Your task to perform on an android device: What's the weather going to be this weekend? Image 0: 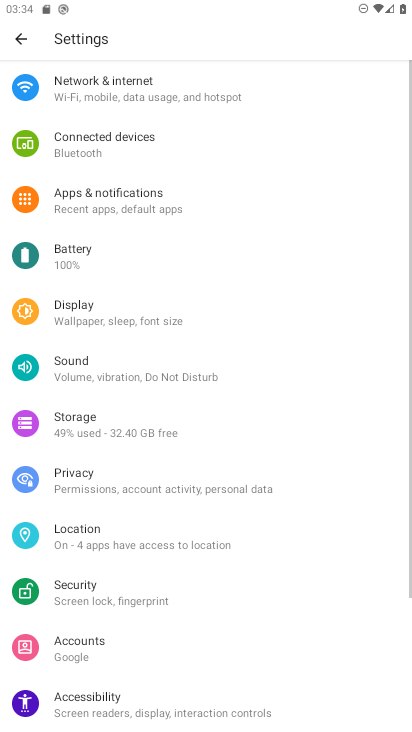
Step 0: press home button
Your task to perform on an android device: What's the weather going to be this weekend? Image 1: 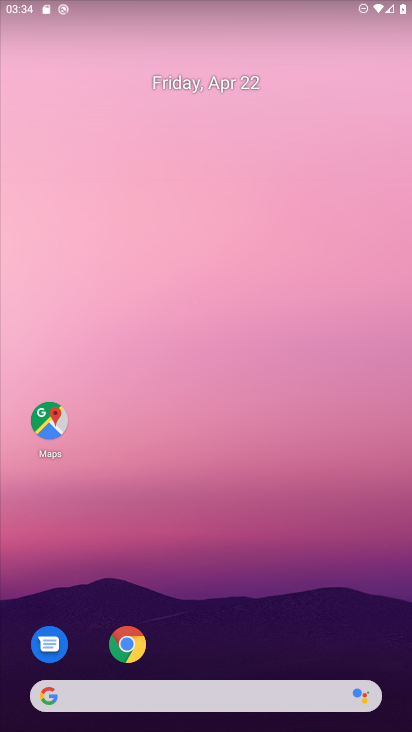
Step 1: drag from (229, 581) to (242, 148)
Your task to perform on an android device: What's the weather going to be this weekend? Image 2: 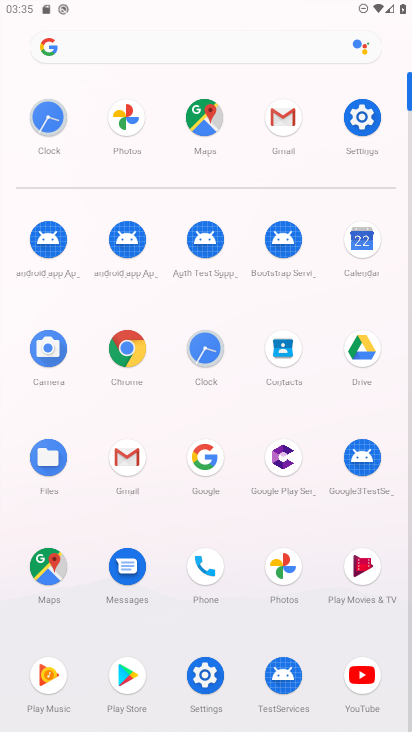
Step 2: click (129, 350)
Your task to perform on an android device: What's the weather going to be this weekend? Image 3: 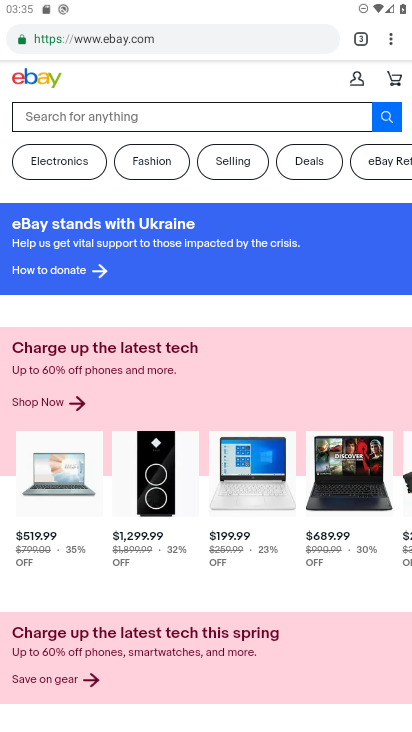
Step 3: click (177, 43)
Your task to perform on an android device: What's the weather going to be this weekend? Image 4: 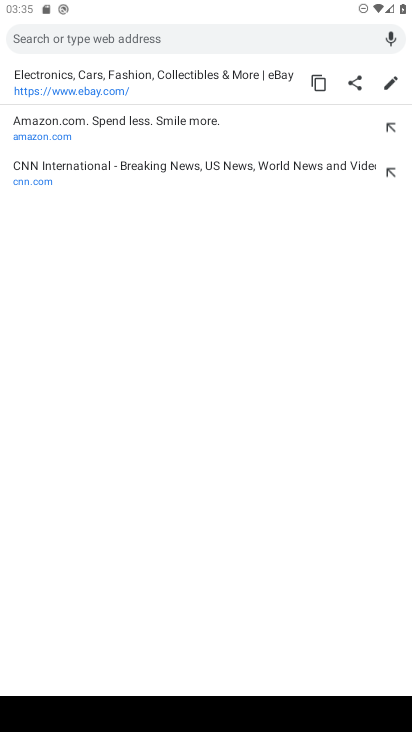
Step 4: type "weather"
Your task to perform on an android device: What's the weather going to be this weekend? Image 5: 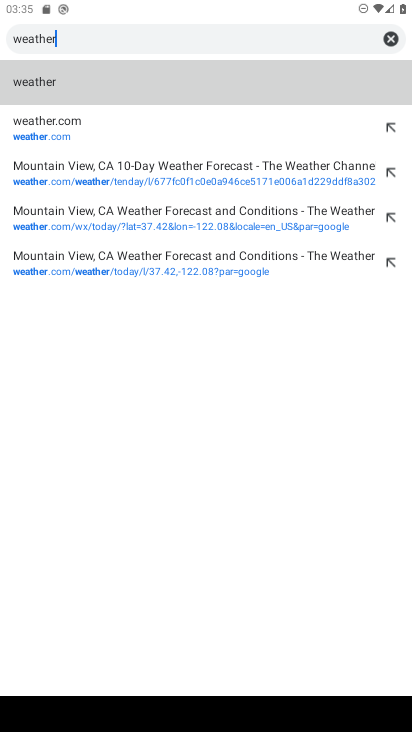
Step 5: click (45, 78)
Your task to perform on an android device: What's the weather going to be this weekend? Image 6: 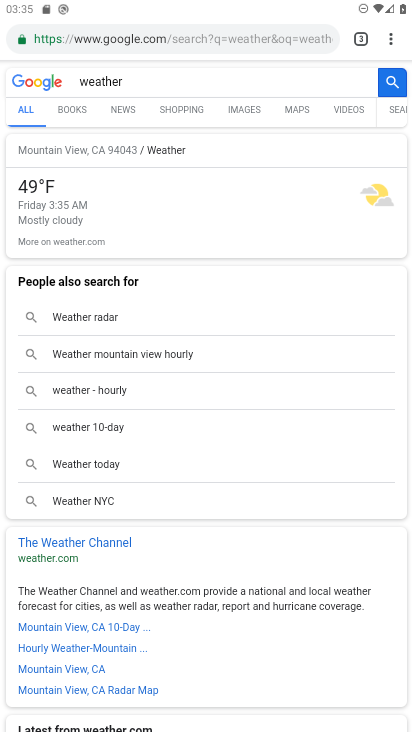
Step 6: click (64, 240)
Your task to perform on an android device: What's the weather going to be this weekend? Image 7: 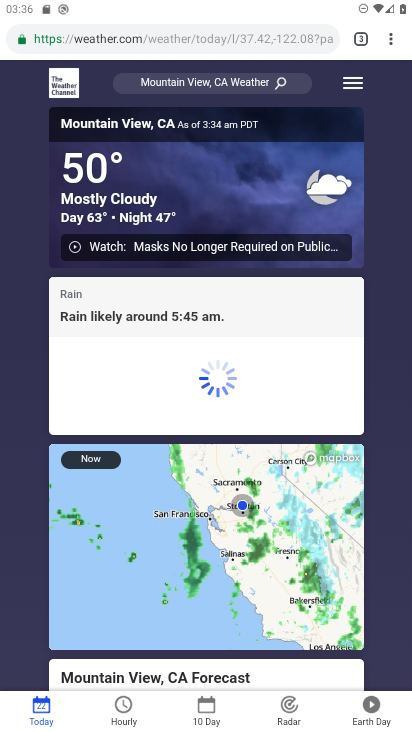
Step 7: drag from (246, 463) to (298, 174)
Your task to perform on an android device: What's the weather going to be this weekend? Image 8: 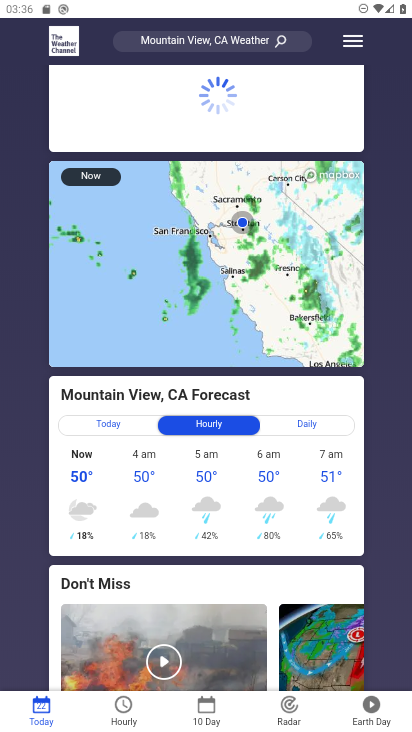
Step 8: drag from (227, 532) to (264, 209)
Your task to perform on an android device: What's the weather going to be this weekend? Image 9: 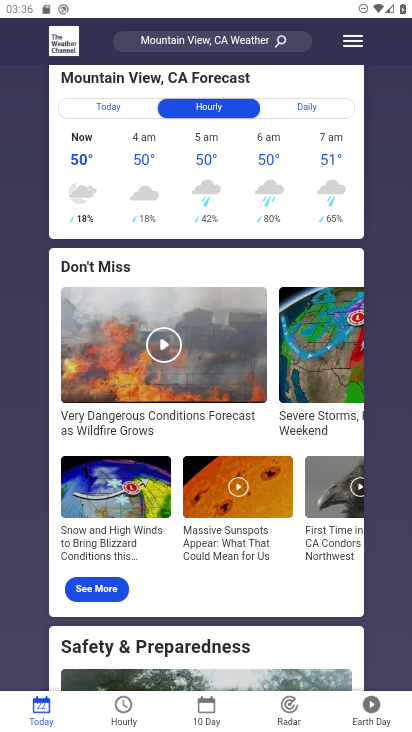
Step 9: click (219, 711)
Your task to perform on an android device: What's the weather going to be this weekend? Image 10: 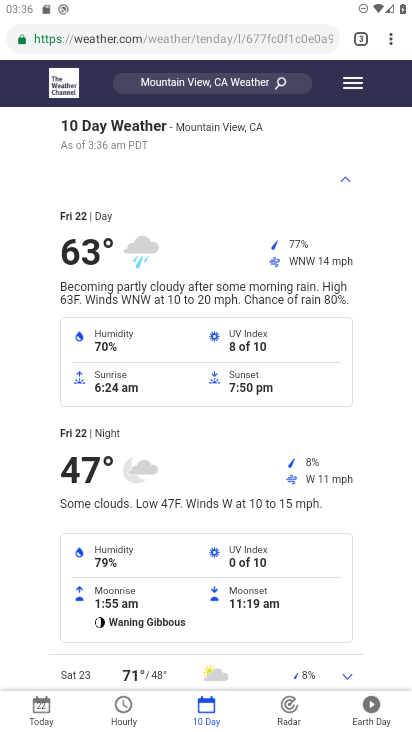
Step 10: task complete